Your task to perform on an android device: refresh tabs in the chrome app Image 0: 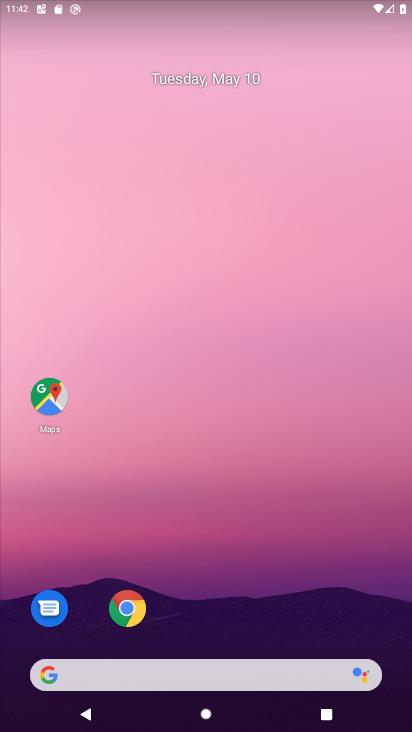
Step 0: click (143, 603)
Your task to perform on an android device: refresh tabs in the chrome app Image 1: 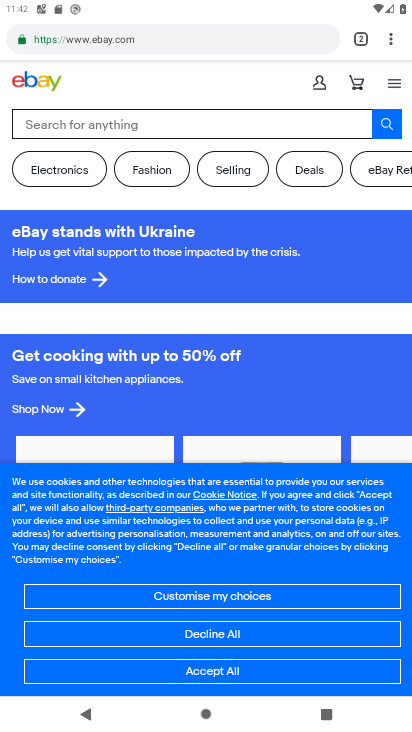
Step 1: click (393, 39)
Your task to perform on an android device: refresh tabs in the chrome app Image 2: 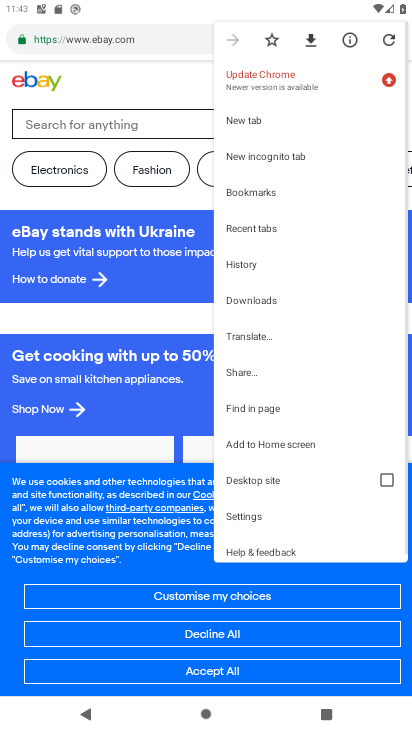
Step 2: click (393, 39)
Your task to perform on an android device: refresh tabs in the chrome app Image 3: 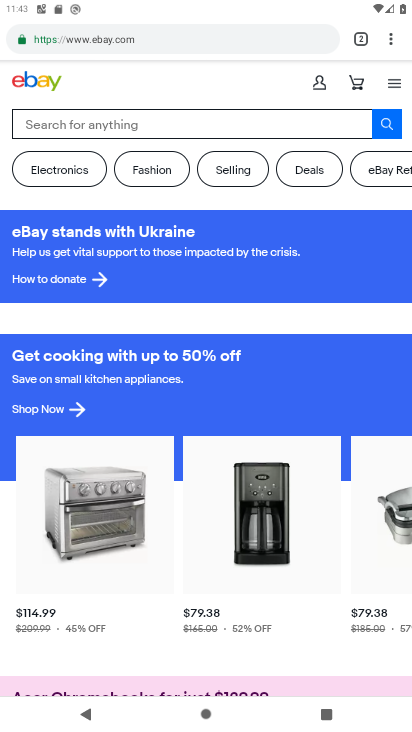
Step 3: task complete